Your task to perform on an android device: Open the map Image 0: 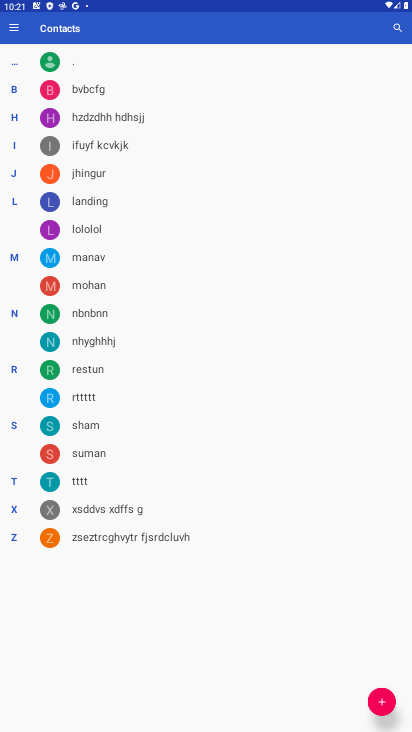
Step 0: press home button
Your task to perform on an android device: Open the map Image 1: 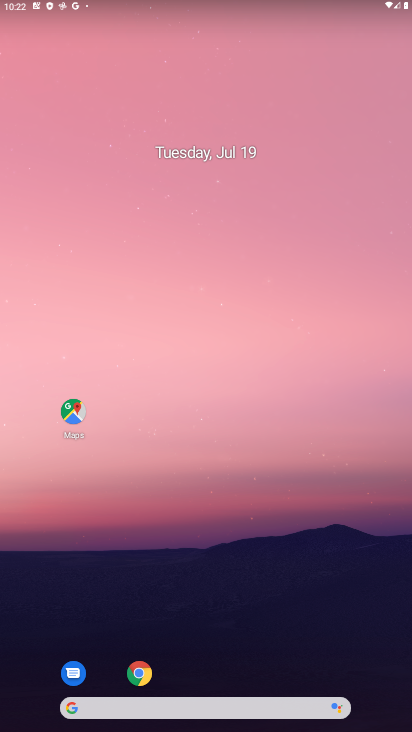
Step 1: click (83, 437)
Your task to perform on an android device: Open the map Image 2: 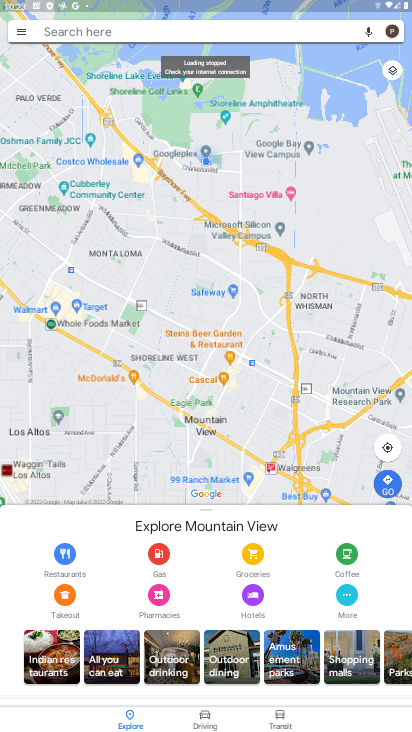
Step 2: task complete